Your task to perform on an android device: Open the calendar app, open the side menu, and click the "Day" option Image 0: 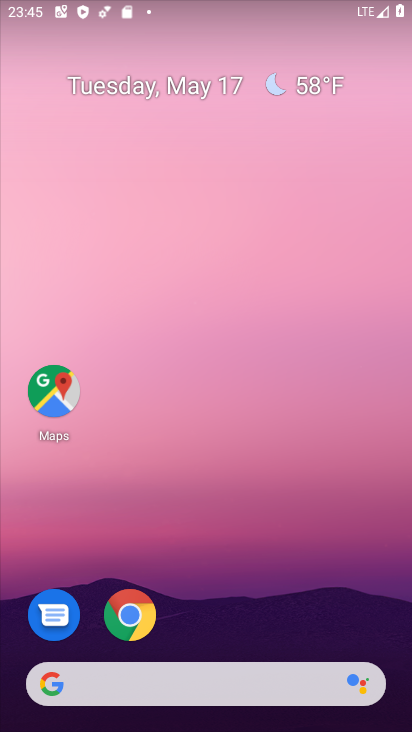
Step 0: drag from (229, 623) to (235, 201)
Your task to perform on an android device: Open the calendar app, open the side menu, and click the "Day" option Image 1: 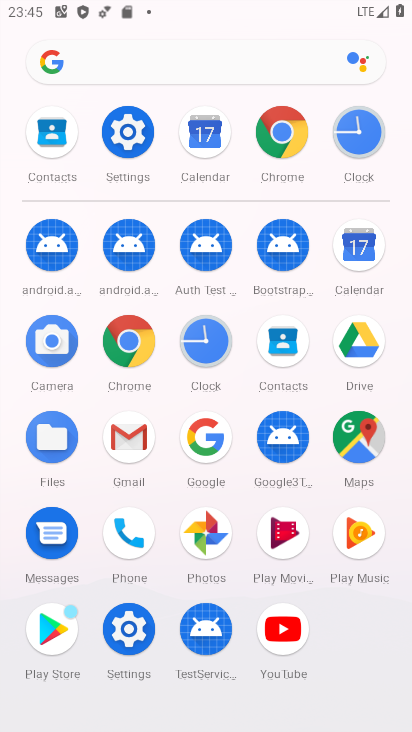
Step 1: click (350, 259)
Your task to perform on an android device: Open the calendar app, open the side menu, and click the "Day" option Image 2: 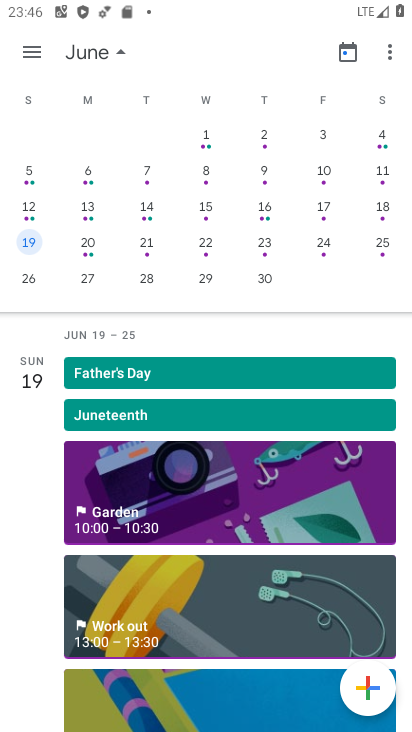
Step 2: click (26, 50)
Your task to perform on an android device: Open the calendar app, open the side menu, and click the "Day" option Image 3: 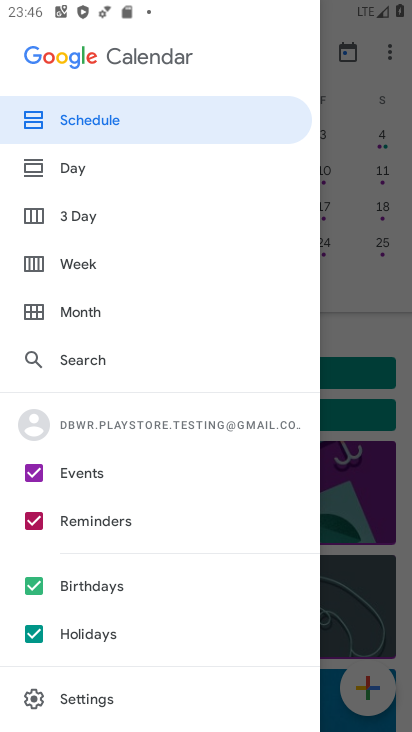
Step 3: click (87, 160)
Your task to perform on an android device: Open the calendar app, open the side menu, and click the "Day" option Image 4: 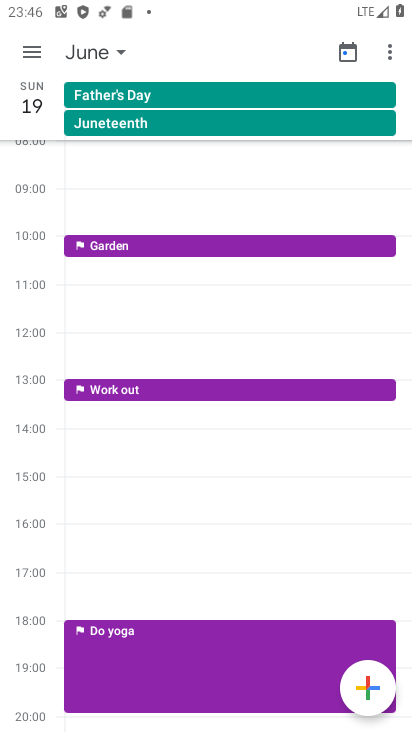
Step 4: click (15, 56)
Your task to perform on an android device: Open the calendar app, open the side menu, and click the "Day" option Image 5: 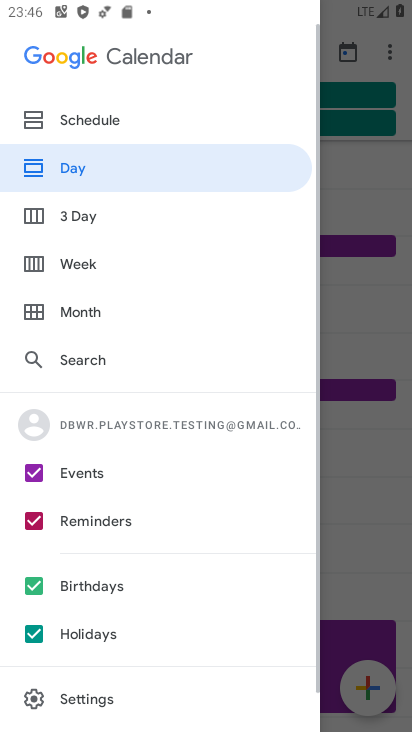
Step 5: task complete